Your task to perform on an android device: turn on airplane mode Image 0: 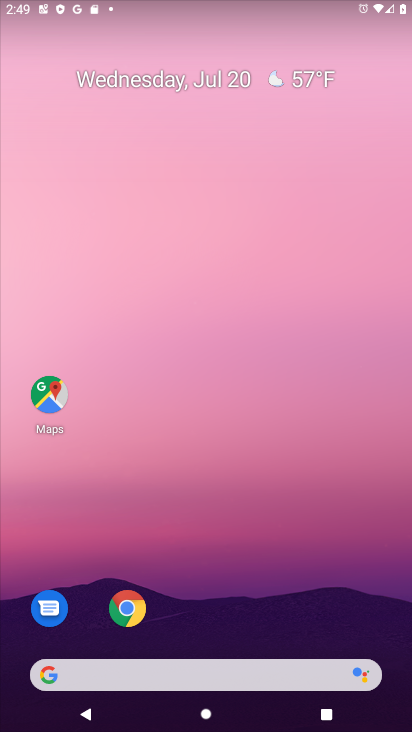
Step 0: drag from (169, 558) to (215, 109)
Your task to perform on an android device: turn on airplane mode Image 1: 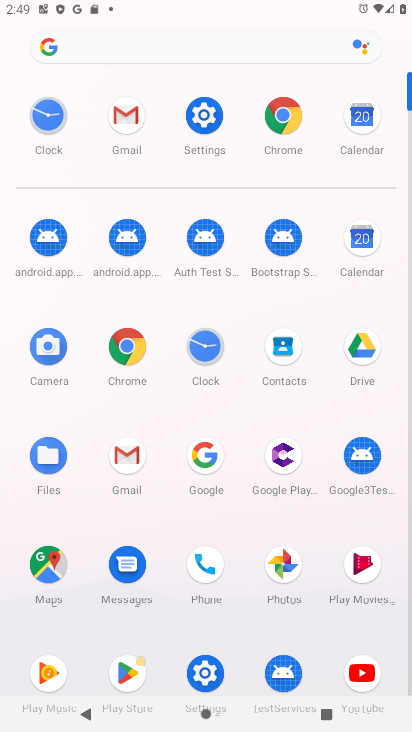
Step 1: click (197, 120)
Your task to perform on an android device: turn on airplane mode Image 2: 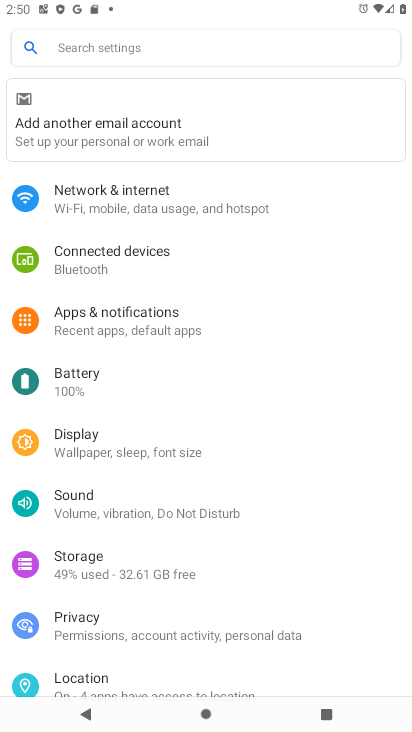
Step 2: click (157, 195)
Your task to perform on an android device: turn on airplane mode Image 3: 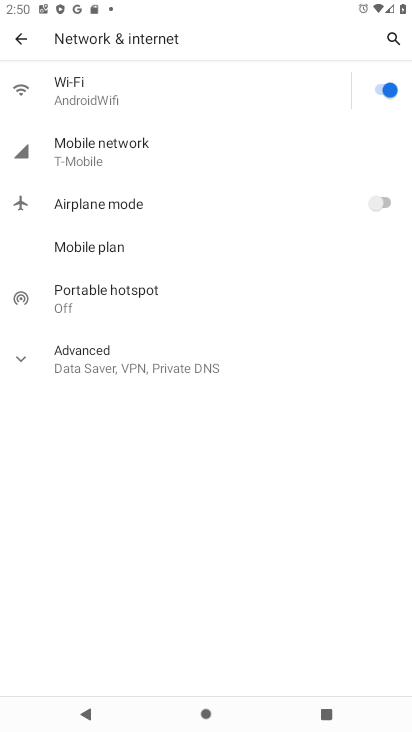
Step 3: click (395, 200)
Your task to perform on an android device: turn on airplane mode Image 4: 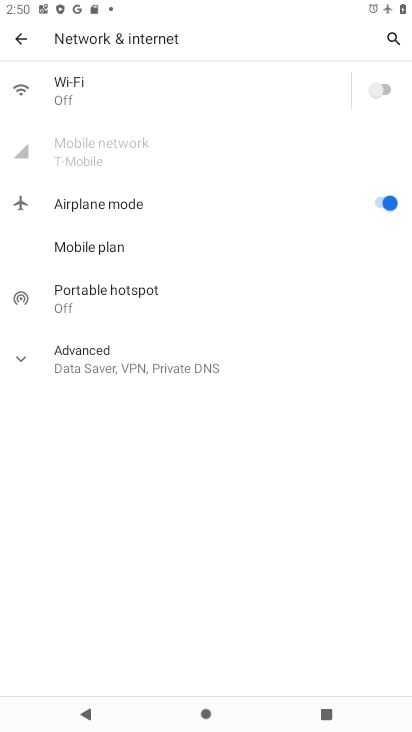
Step 4: task complete